Your task to perform on an android device: check out phone information Image 0: 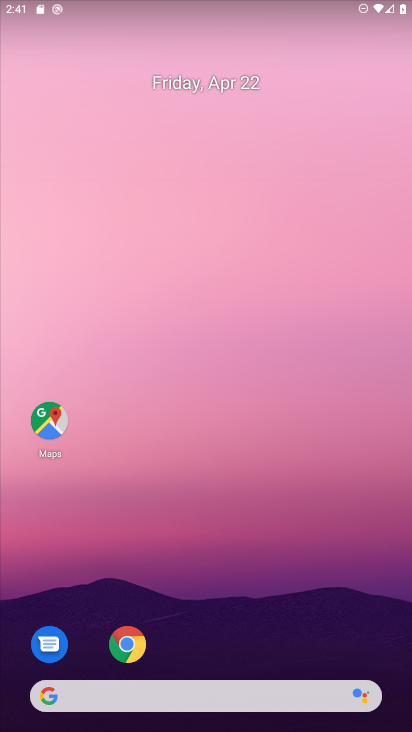
Step 0: drag from (247, 601) to (267, 130)
Your task to perform on an android device: check out phone information Image 1: 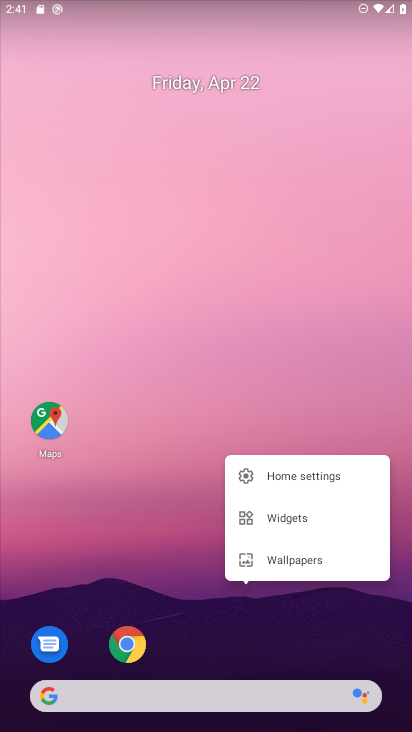
Step 1: drag from (179, 601) to (216, 172)
Your task to perform on an android device: check out phone information Image 2: 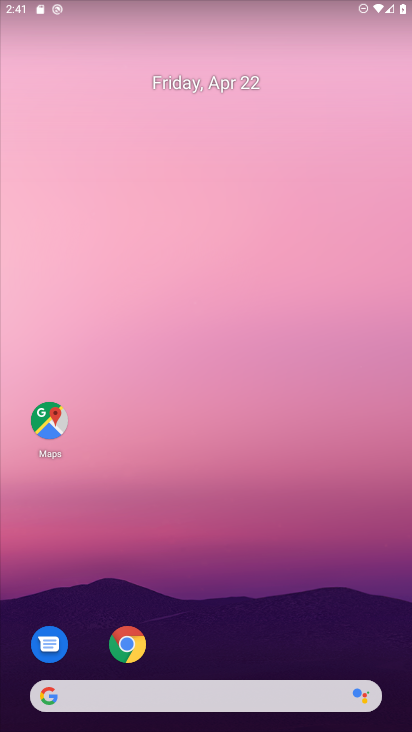
Step 2: drag from (252, 609) to (266, 213)
Your task to perform on an android device: check out phone information Image 3: 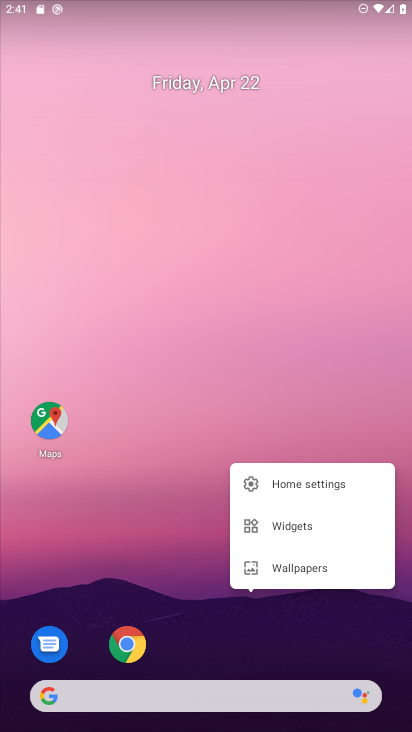
Step 3: click (222, 630)
Your task to perform on an android device: check out phone information Image 4: 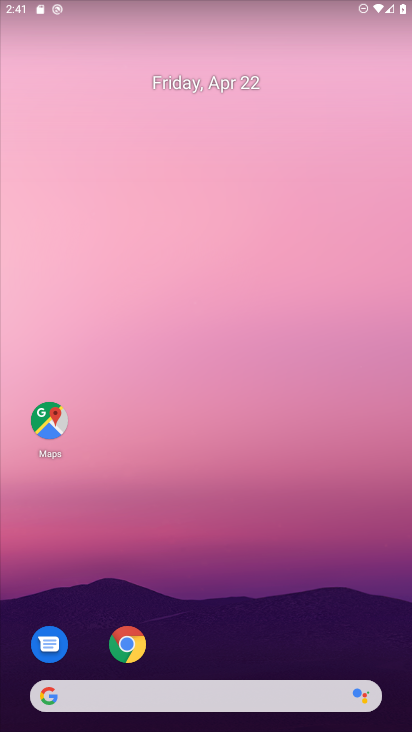
Step 4: drag from (345, 651) to (303, 152)
Your task to perform on an android device: check out phone information Image 5: 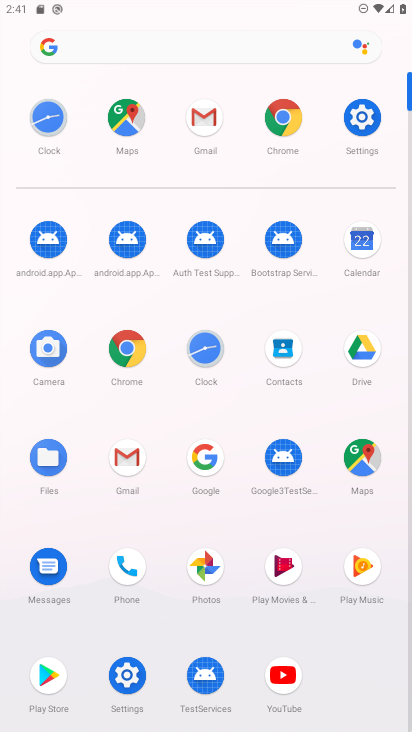
Step 5: click (126, 571)
Your task to perform on an android device: check out phone information Image 6: 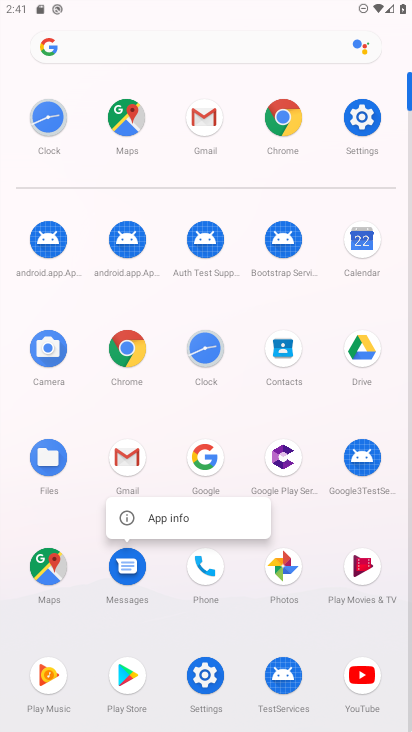
Step 6: click (165, 513)
Your task to perform on an android device: check out phone information Image 7: 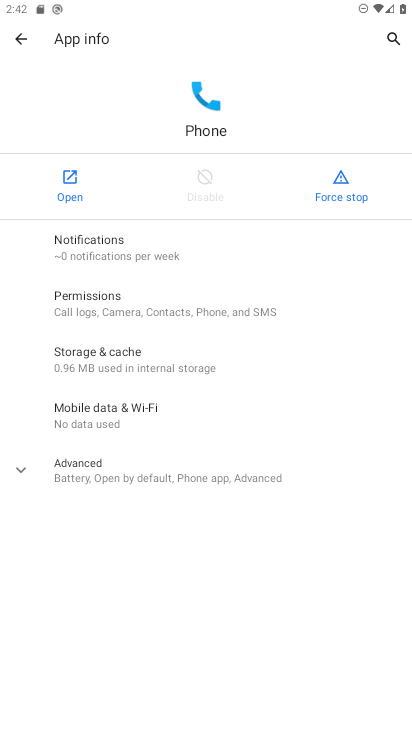
Step 7: click (89, 468)
Your task to perform on an android device: check out phone information Image 8: 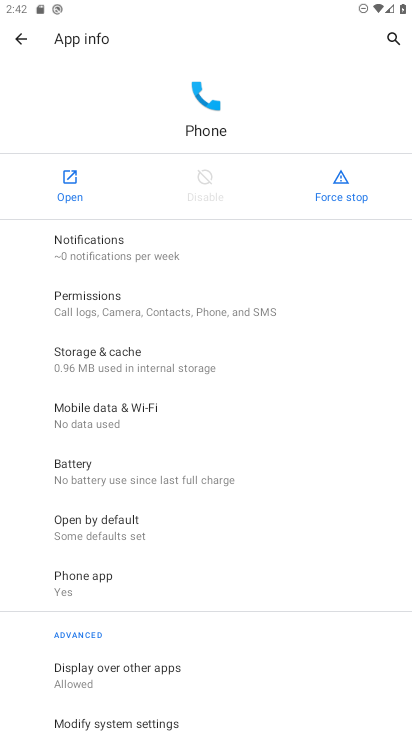
Step 8: task complete